Your task to perform on an android device: turn pop-ups off in chrome Image 0: 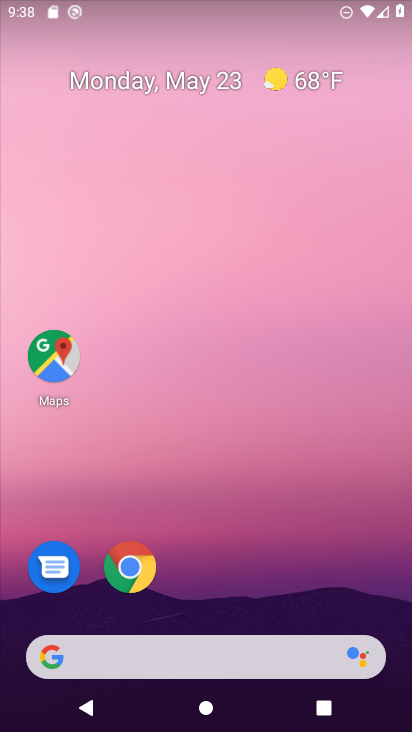
Step 0: click (339, 211)
Your task to perform on an android device: turn pop-ups off in chrome Image 1: 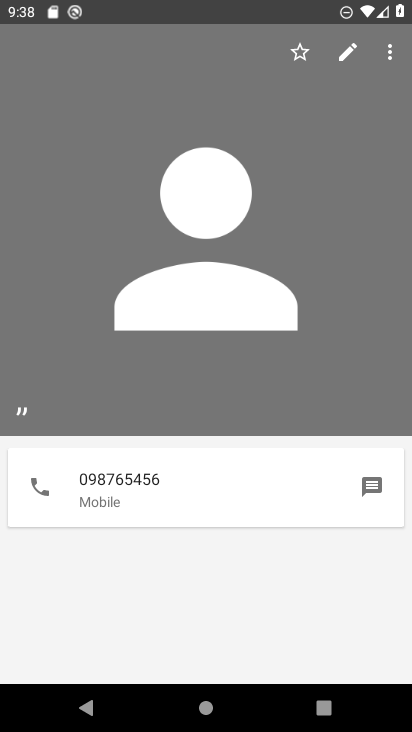
Step 1: press home button
Your task to perform on an android device: turn pop-ups off in chrome Image 2: 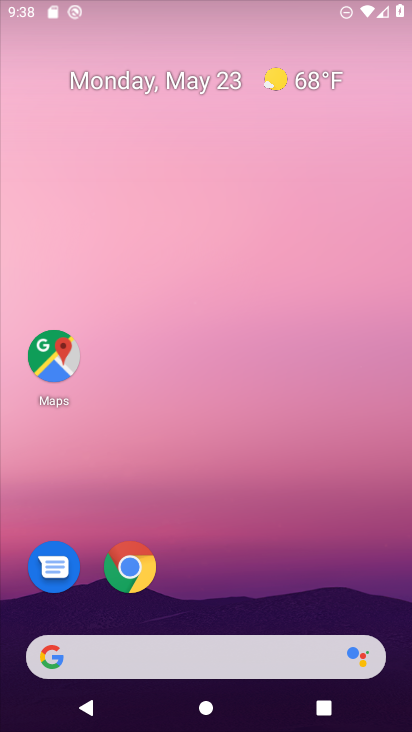
Step 2: drag from (236, 618) to (310, 143)
Your task to perform on an android device: turn pop-ups off in chrome Image 3: 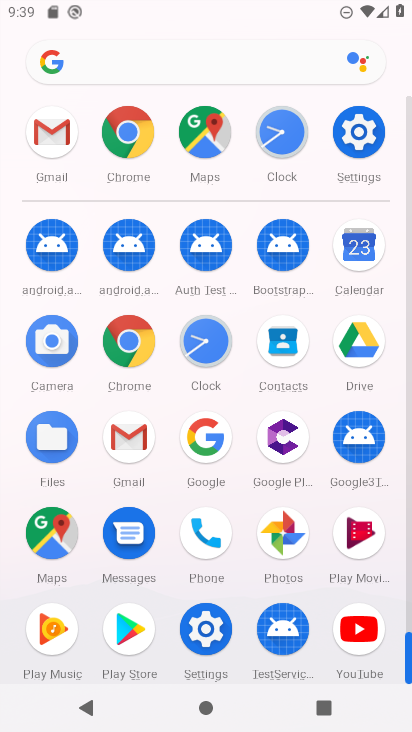
Step 3: click (136, 125)
Your task to perform on an android device: turn pop-ups off in chrome Image 4: 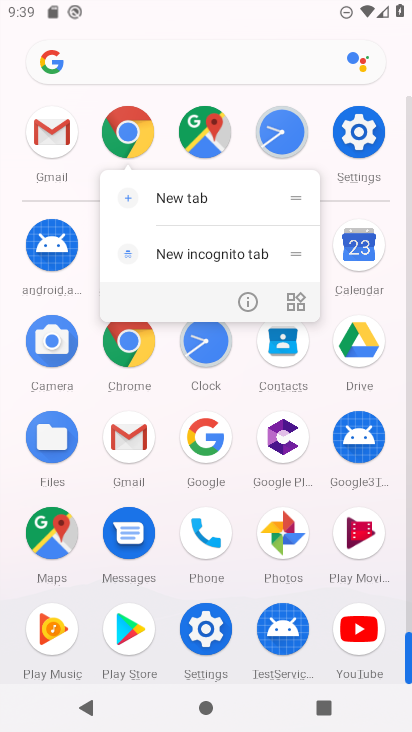
Step 4: click (236, 299)
Your task to perform on an android device: turn pop-ups off in chrome Image 5: 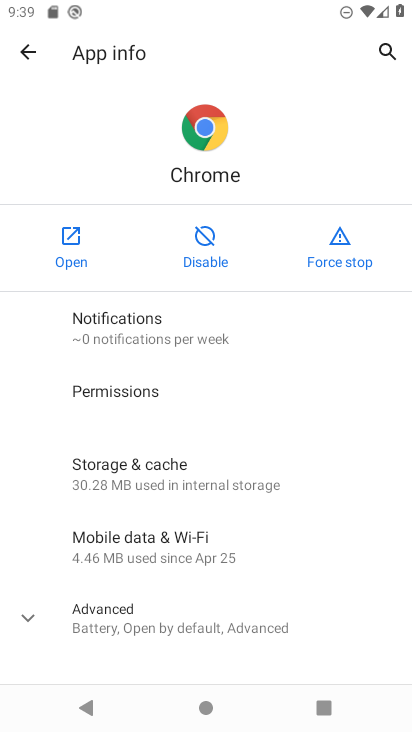
Step 5: click (68, 240)
Your task to perform on an android device: turn pop-ups off in chrome Image 6: 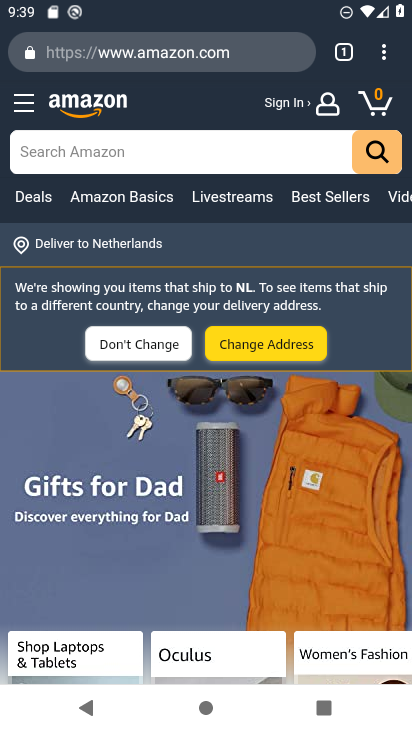
Step 6: drag from (243, 599) to (305, 237)
Your task to perform on an android device: turn pop-ups off in chrome Image 7: 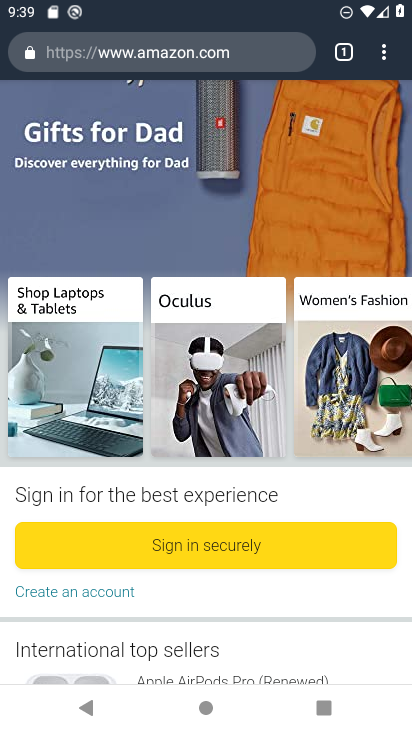
Step 7: drag from (256, 591) to (304, 215)
Your task to perform on an android device: turn pop-ups off in chrome Image 8: 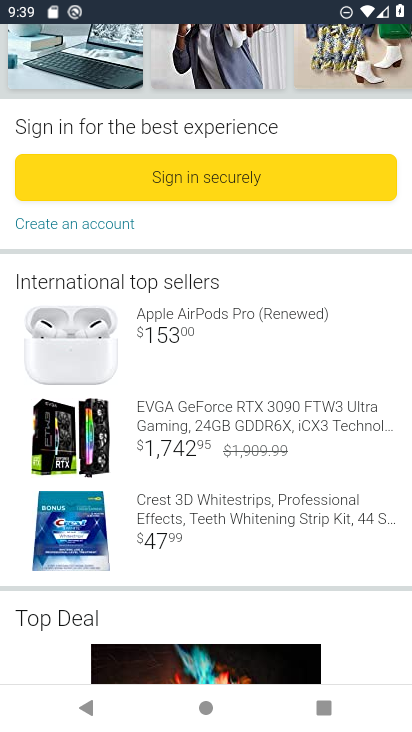
Step 8: drag from (244, 572) to (343, 71)
Your task to perform on an android device: turn pop-ups off in chrome Image 9: 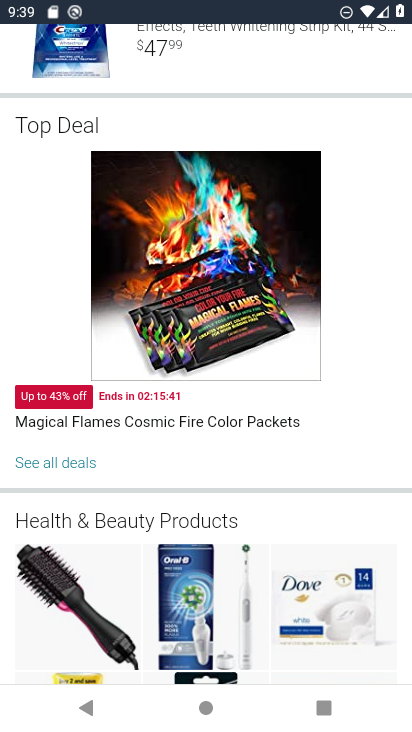
Step 9: drag from (298, 278) to (318, 720)
Your task to perform on an android device: turn pop-ups off in chrome Image 10: 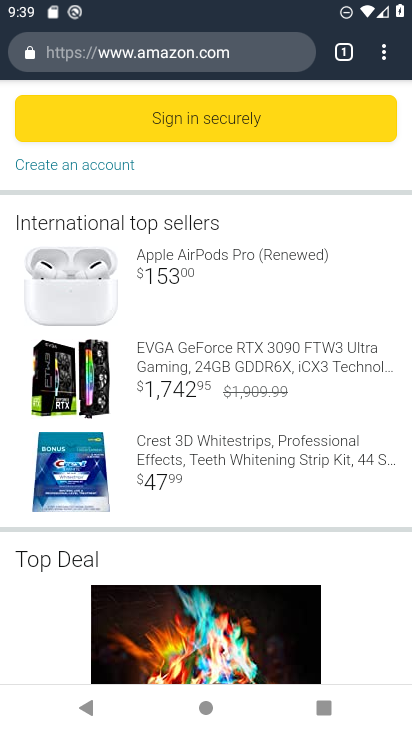
Step 10: drag from (314, 191) to (364, 719)
Your task to perform on an android device: turn pop-ups off in chrome Image 11: 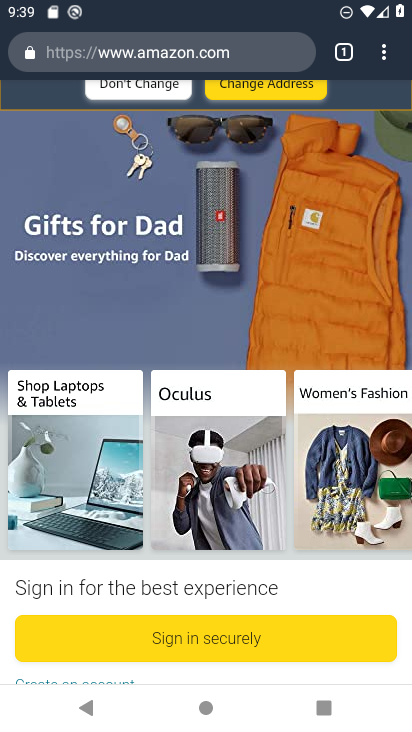
Step 11: click (394, 52)
Your task to perform on an android device: turn pop-ups off in chrome Image 12: 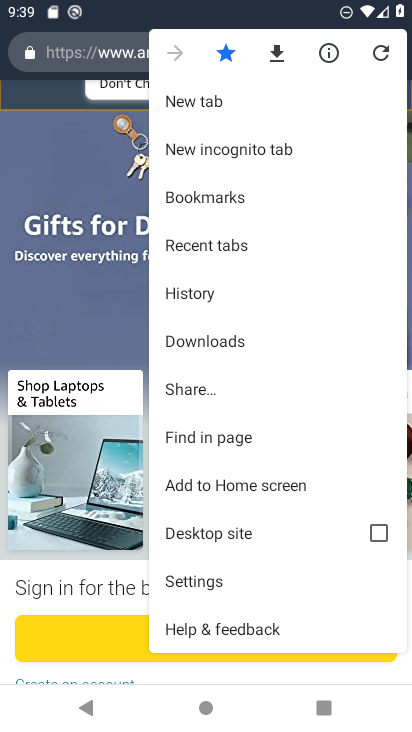
Step 12: click (234, 573)
Your task to perform on an android device: turn pop-ups off in chrome Image 13: 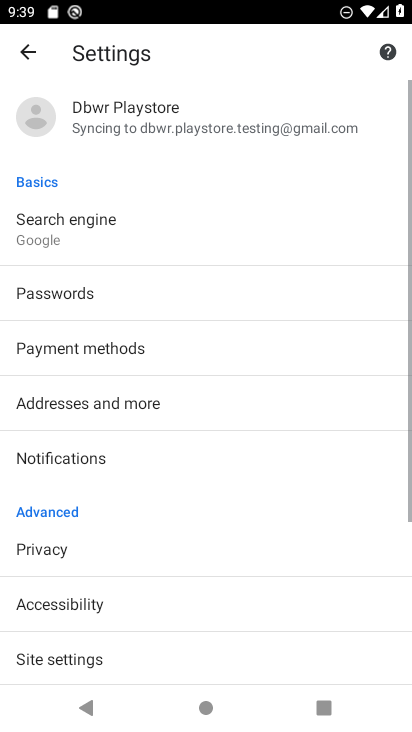
Step 13: drag from (232, 570) to (294, 71)
Your task to perform on an android device: turn pop-ups off in chrome Image 14: 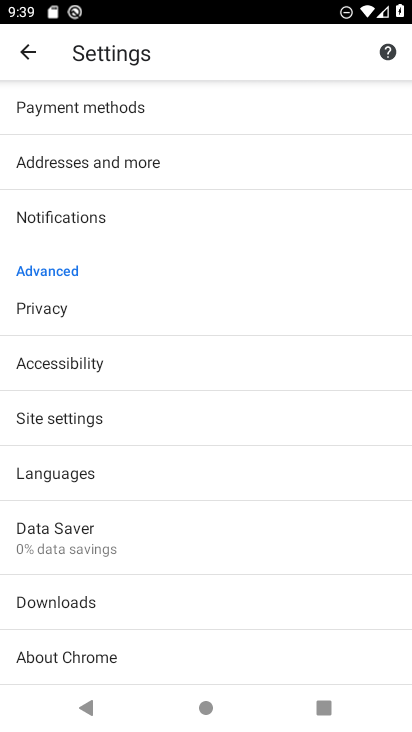
Step 14: click (113, 426)
Your task to perform on an android device: turn pop-ups off in chrome Image 15: 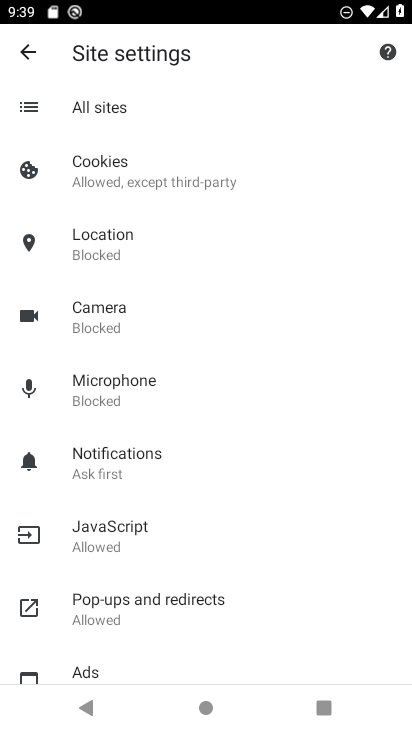
Step 15: click (152, 589)
Your task to perform on an android device: turn pop-ups off in chrome Image 16: 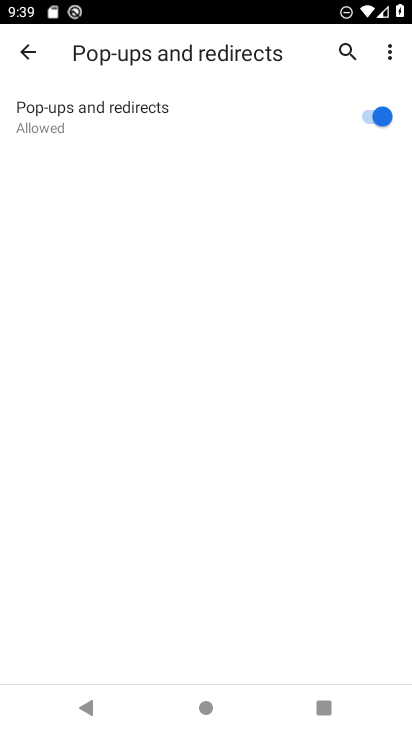
Step 16: drag from (226, 567) to (404, 90)
Your task to perform on an android device: turn pop-ups off in chrome Image 17: 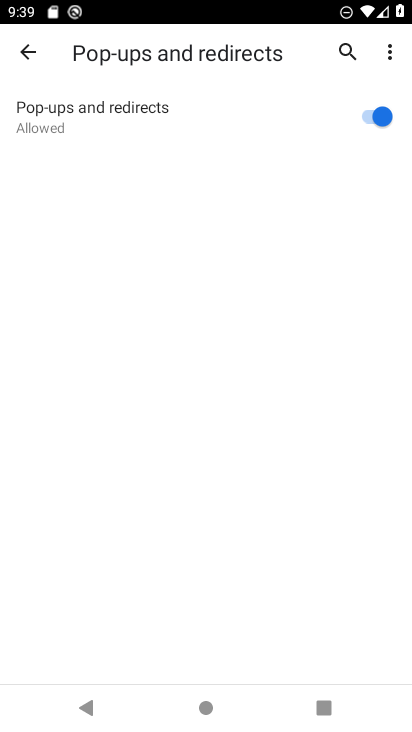
Step 17: click (373, 113)
Your task to perform on an android device: turn pop-ups off in chrome Image 18: 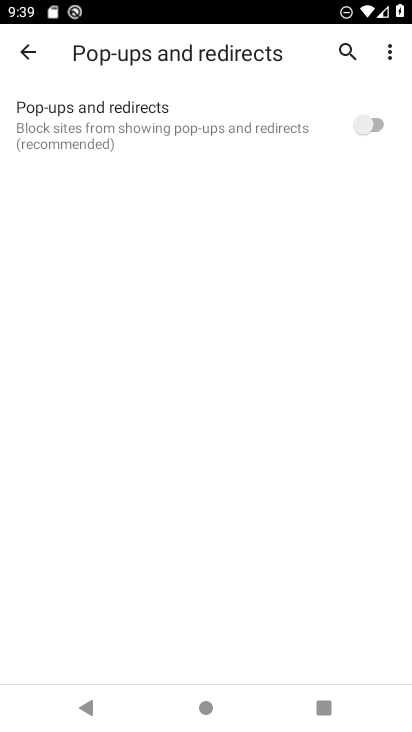
Step 18: task complete